Your task to perform on an android device: turn on improve location accuracy Image 0: 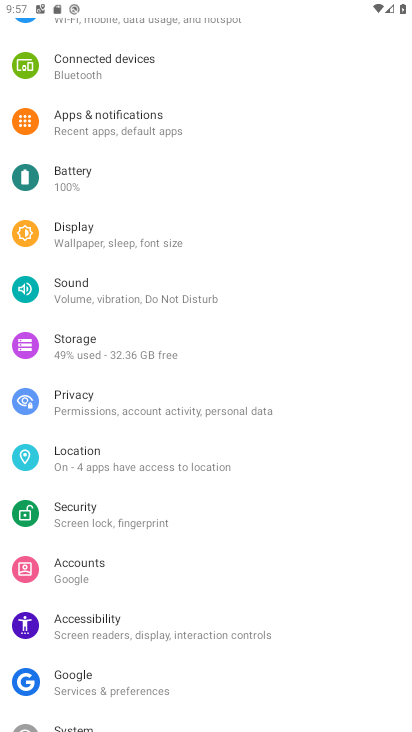
Step 0: press home button
Your task to perform on an android device: turn on improve location accuracy Image 1: 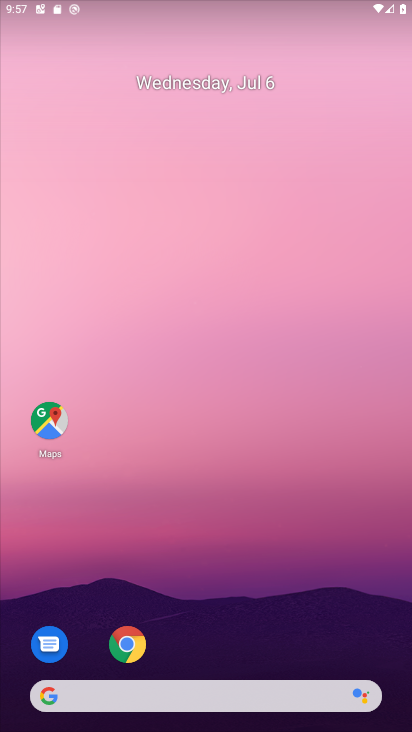
Step 1: drag from (221, 476) to (234, 214)
Your task to perform on an android device: turn on improve location accuracy Image 2: 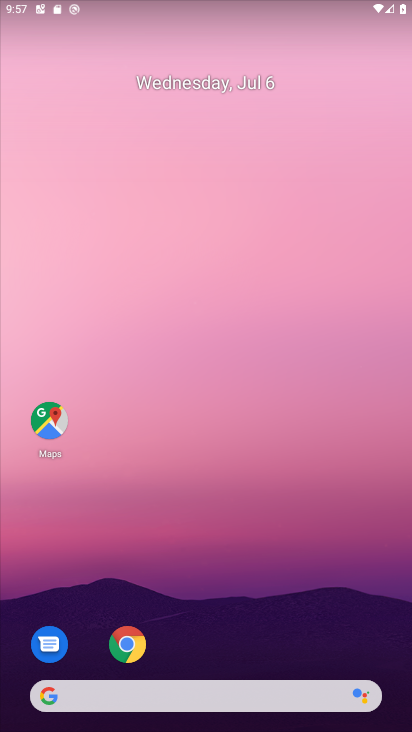
Step 2: drag from (216, 699) to (256, 91)
Your task to perform on an android device: turn on improve location accuracy Image 3: 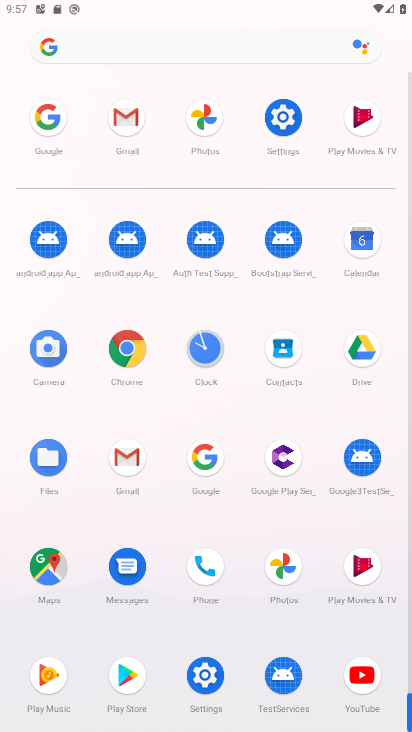
Step 3: click (285, 139)
Your task to perform on an android device: turn on improve location accuracy Image 4: 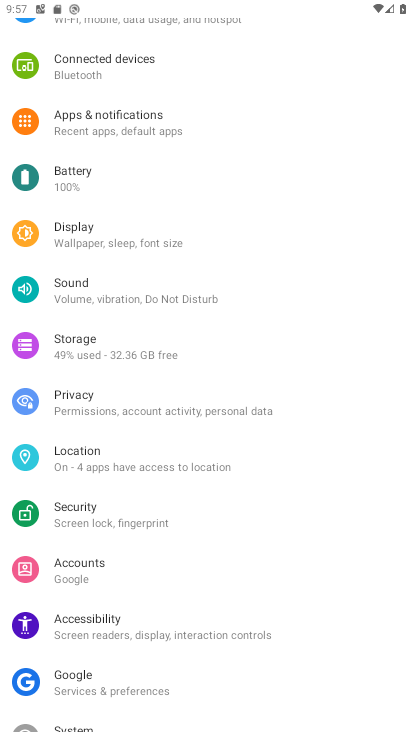
Step 4: drag from (197, 228) to (200, 417)
Your task to perform on an android device: turn on improve location accuracy Image 5: 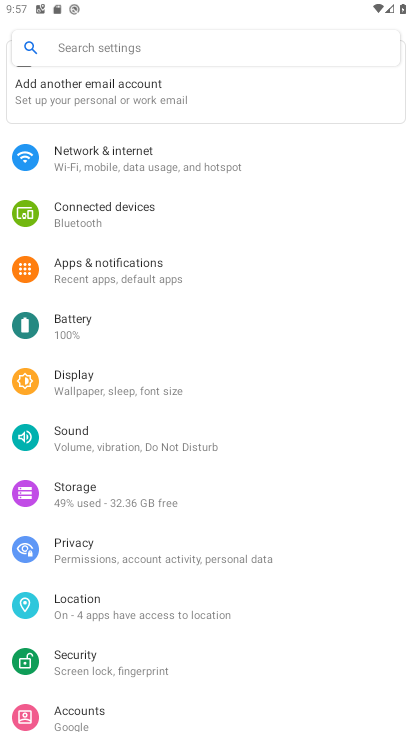
Step 5: click (148, 604)
Your task to perform on an android device: turn on improve location accuracy Image 6: 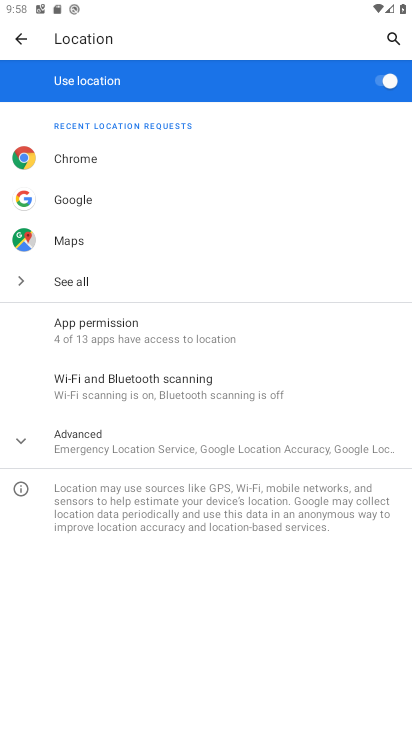
Step 6: click (172, 450)
Your task to perform on an android device: turn on improve location accuracy Image 7: 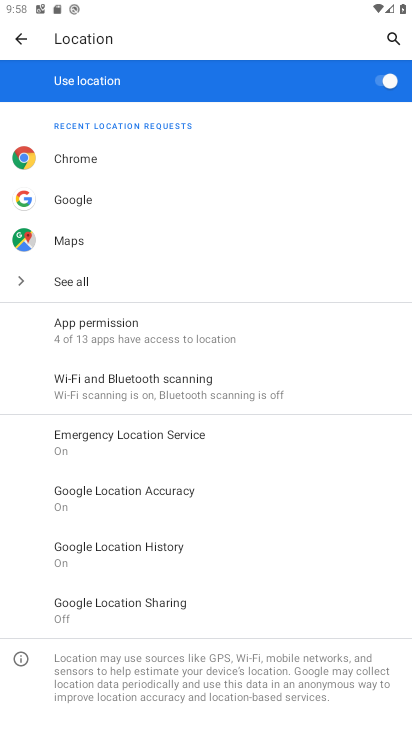
Step 7: click (145, 498)
Your task to perform on an android device: turn on improve location accuracy Image 8: 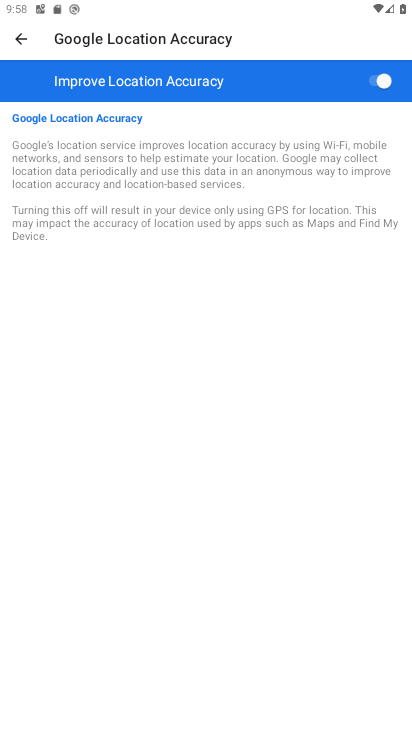
Step 8: task complete